Your task to perform on an android device: delete the emails in spam in the gmail app Image 0: 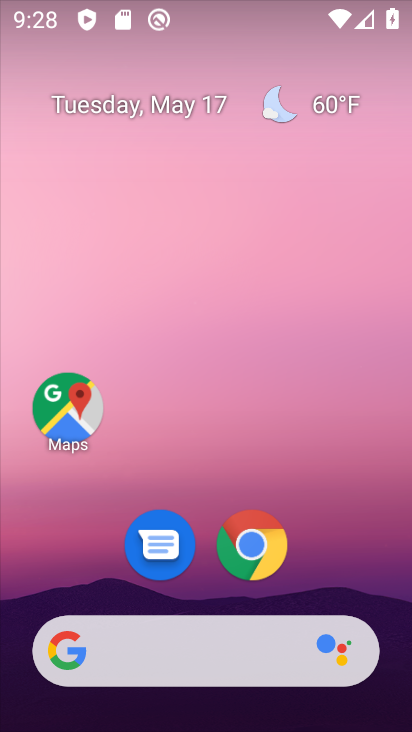
Step 0: drag from (187, 607) to (241, 257)
Your task to perform on an android device: delete the emails in spam in the gmail app Image 1: 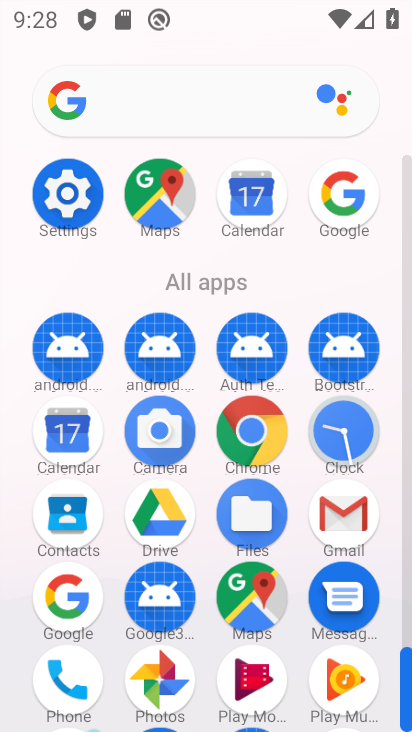
Step 1: click (337, 514)
Your task to perform on an android device: delete the emails in spam in the gmail app Image 2: 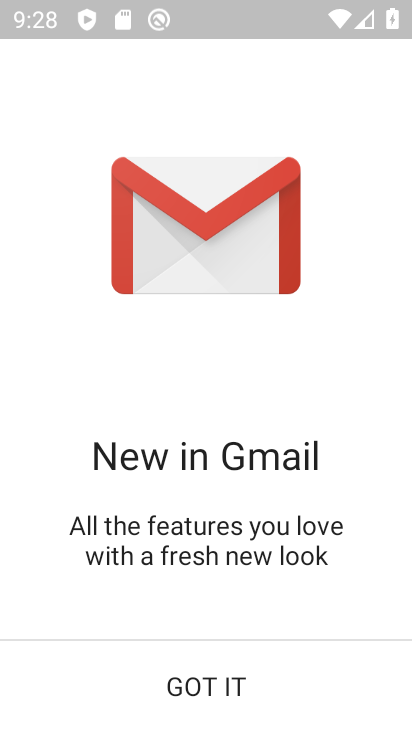
Step 2: click (188, 678)
Your task to perform on an android device: delete the emails in spam in the gmail app Image 3: 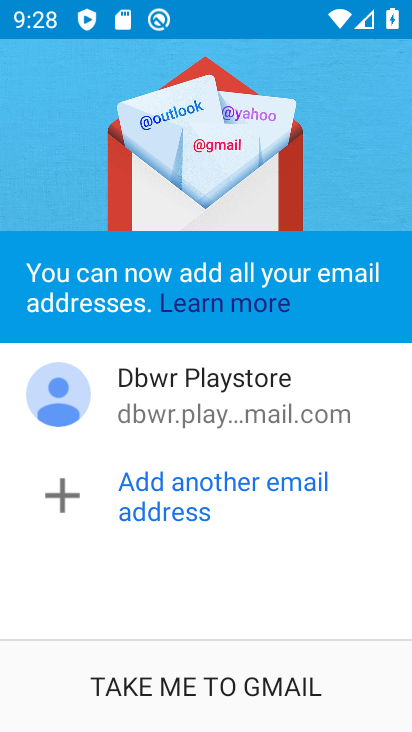
Step 3: click (152, 691)
Your task to perform on an android device: delete the emails in spam in the gmail app Image 4: 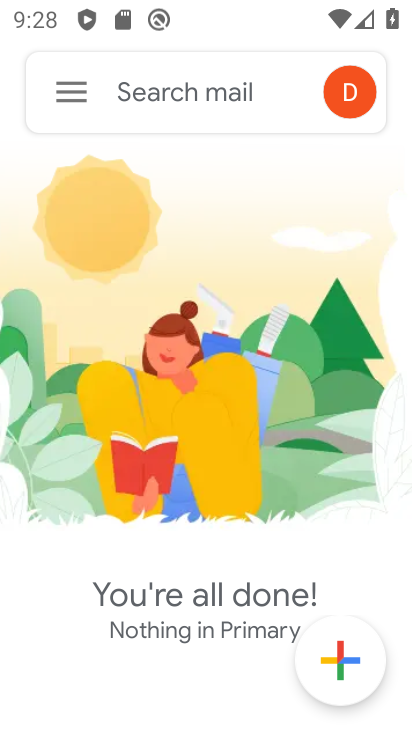
Step 4: click (72, 92)
Your task to perform on an android device: delete the emails in spam in the gmail app Image 5: 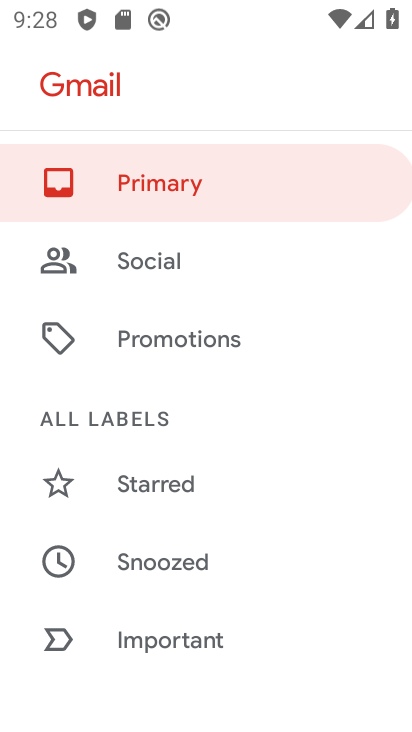
Step 5: drag from (155, 663) to (153, 359)
Your task to perform on an android device: delete the emails in spam in the gmail app Image 6: 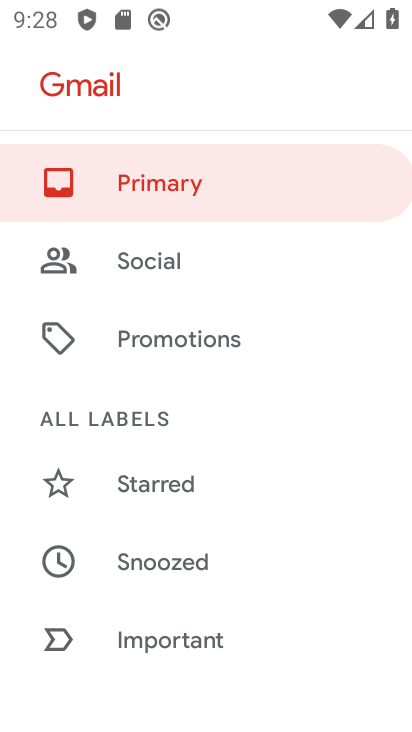
Step 6: drag from (207, 665) to (251, 345)
Your task to perform on an android device: delete the emails in spam in the gmail app Image 7: 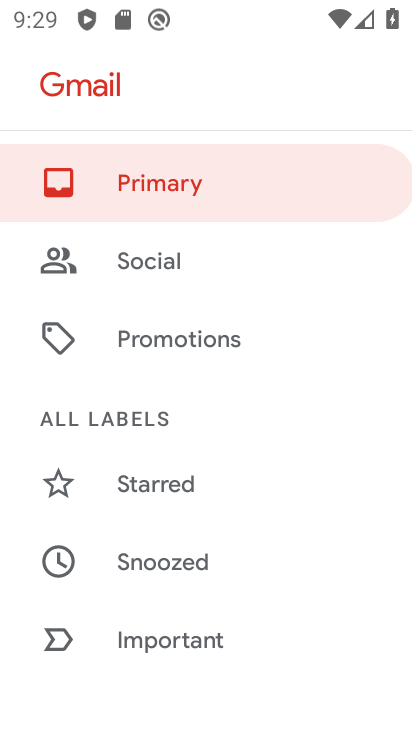
Step 7: drag from (199, 442) to (217, 305)
Your task to perform on an android device: delete the emails in spam in the gmail app Image 8: 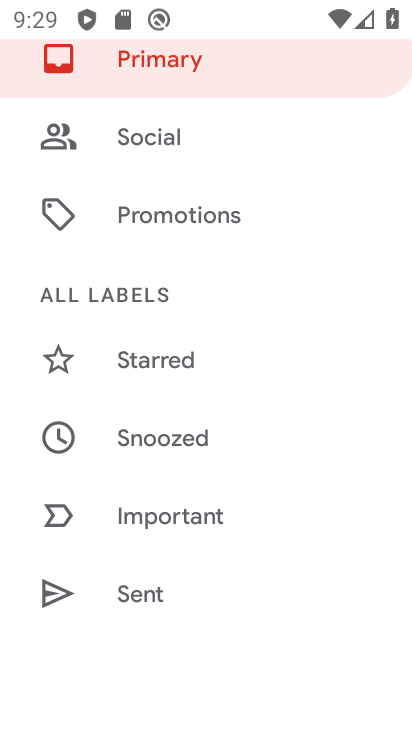
Step 8: drag from (144, 637) to (187, 283)
Your task to perform on an android device: delete the emails in spam in the gmail app Image 9: 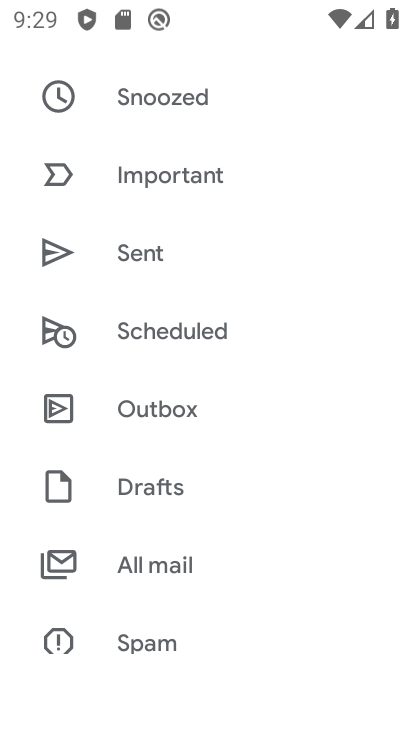
Step 9: click (143, 641)
Your task to perform on an android device: delete the emails in spam in the gmail app Image 10: 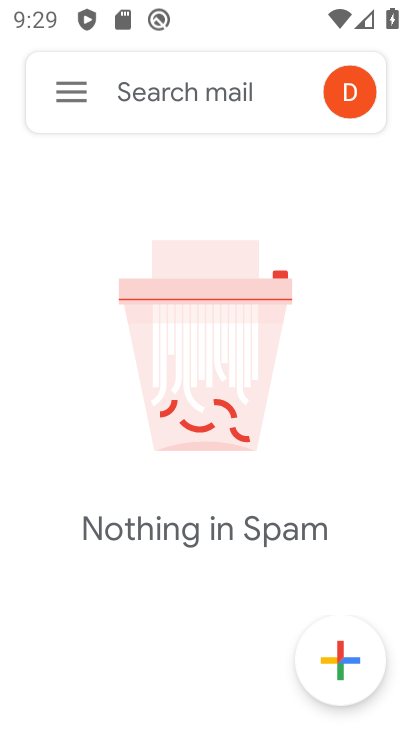
Step 10: task complete